Your task to perform on an android device: See recent photos Image 0: 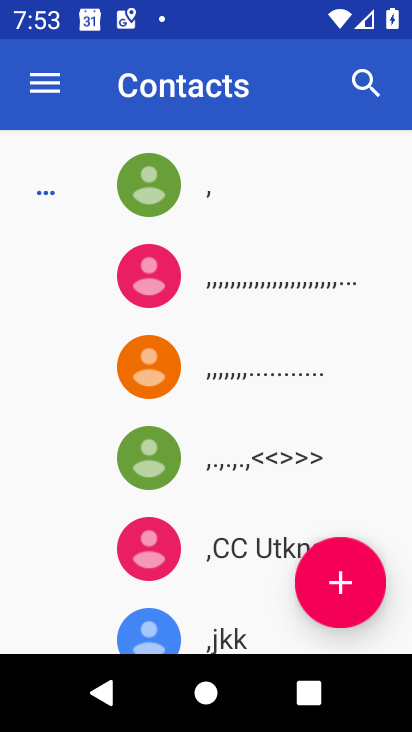
Step 0: press home button
Your task to perform on an android device: See recent photos Image 1: 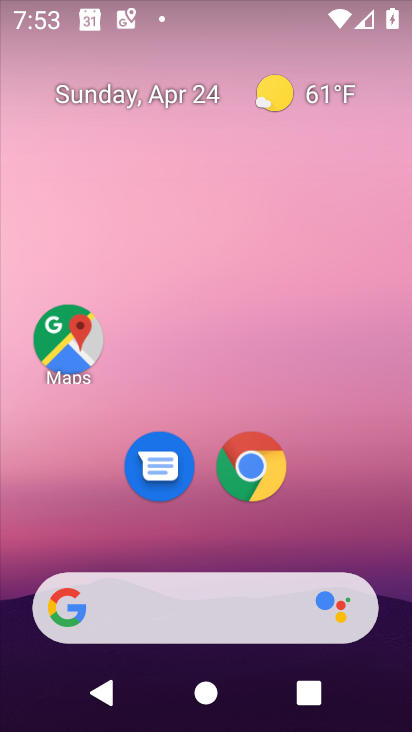
Step 1: drag from (201, 505) to (329, 10)
Your task to perform on an android device: See recent photos Image 2: 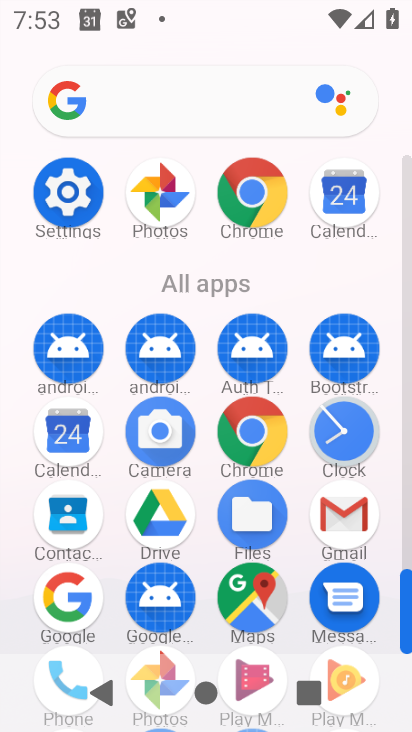
Step 2: drag from (216, 568) to (196, 286)
Your task to perform on an android device: See recent photos Image 3: 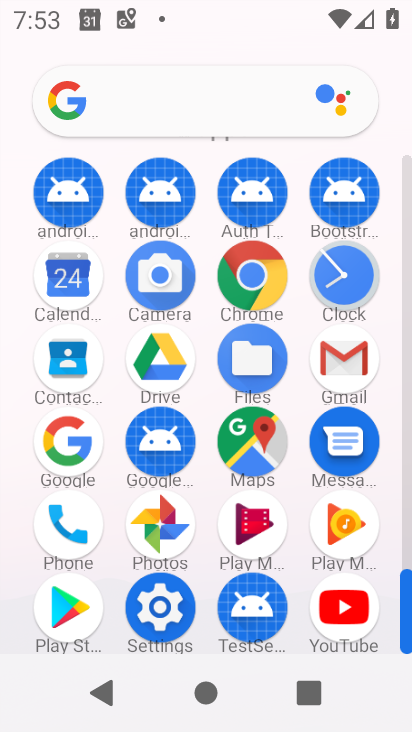
Step 3: click (155, 528)
Your task to perform on an android device: See recent photos Image 4: 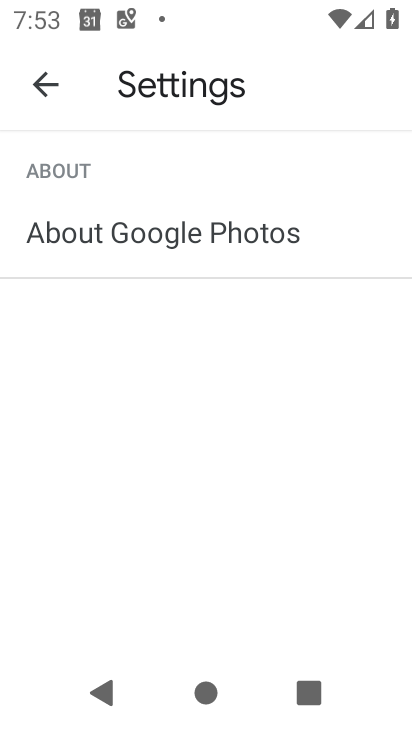
Step 4: click (37, 77)
Your task to perform on an android device: See recent photos Image 5: 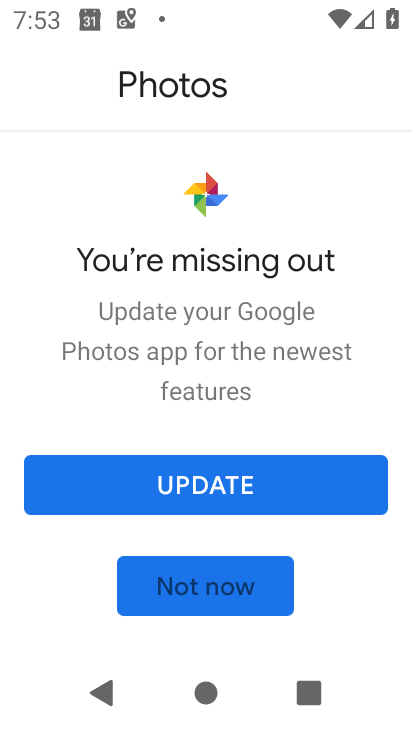
Step 5: click (200, 595)
Your task to perform on an android device: See recent photos Image 6: 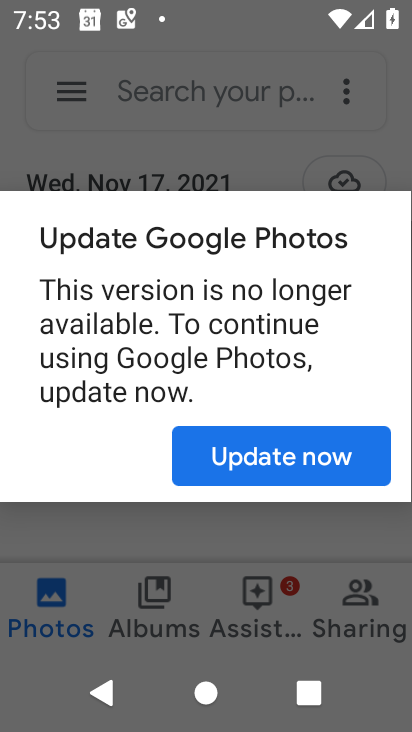
Step 6: click (226, 460)
Your task to perform on an android device: See recent photos Image 7: 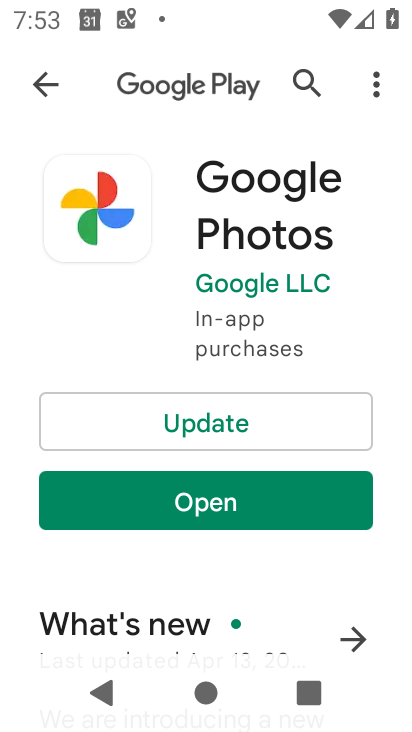
Step 7: click (209, 510)
Your task to perform on an android device: See recent photos Image 8: 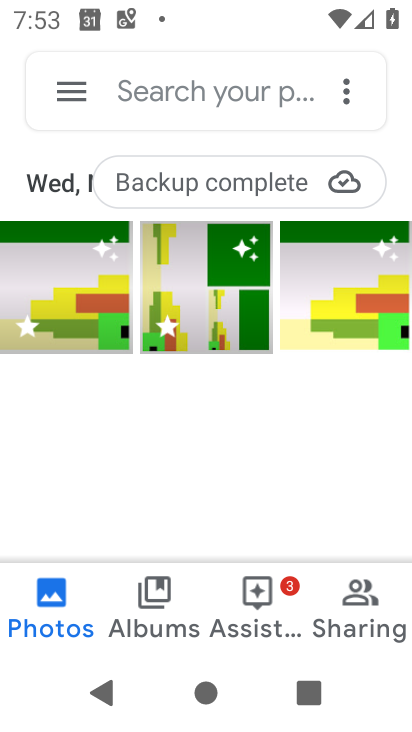
Step 8: task complete